Your task to perform on an android device: Check the news Image 0: 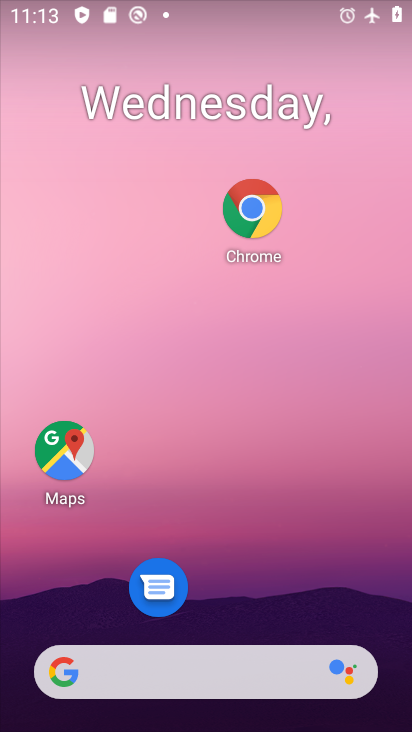
Step 0: drag from (251, 78) to (248, 8)
Your task to perform on an android device: Check the news Image 1: 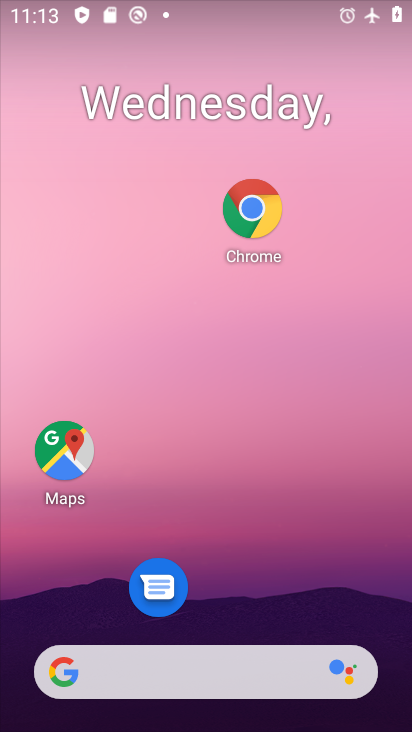
Step 1: click (246, 490)
Your task to perform on an android device: Check the news Image 2: 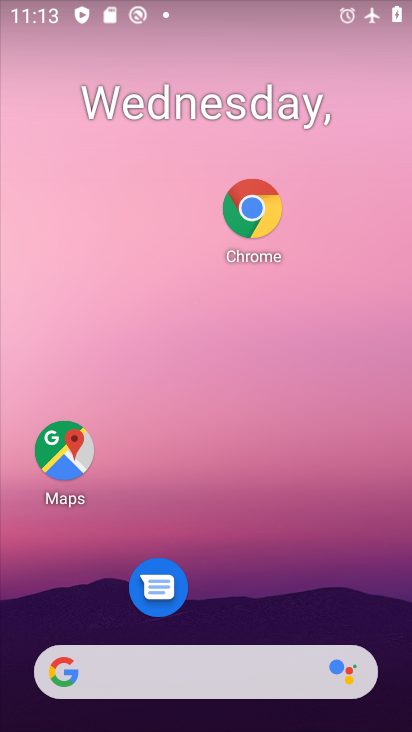
Step 2: click (225, 672)
Your task to perform on an android device: Check the news Image 3: 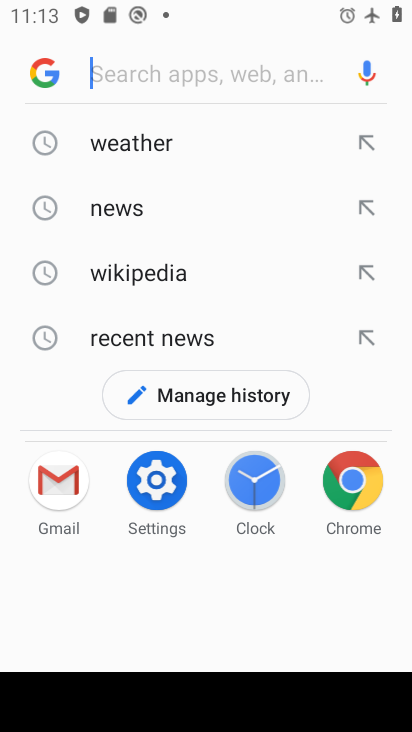
Step 3: click (110, 207)
Your task to perform on an android device: Check the news Image 4: 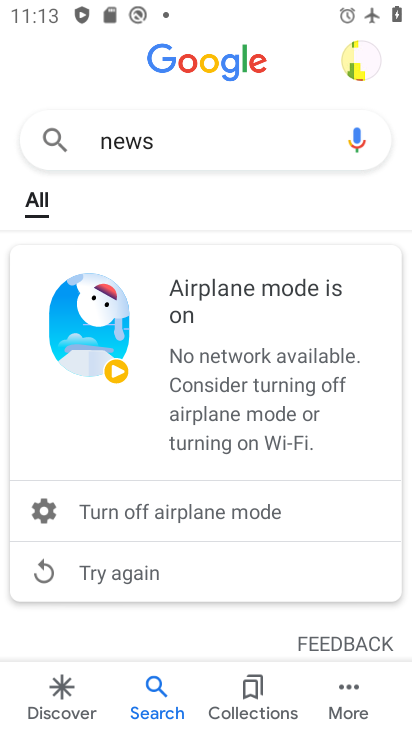
Step 4: press back button
Your task to perform on an android device: Check the news Image 5: 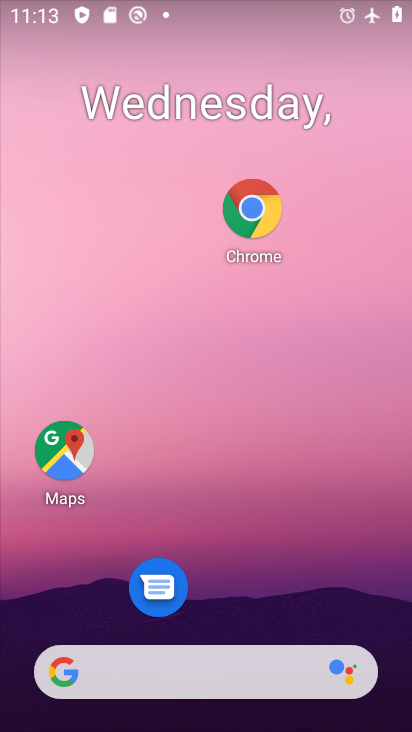
Step 5: drag from (218, 628) to (194, 86)
Your task to perform on an android device: Check the news Image 6: 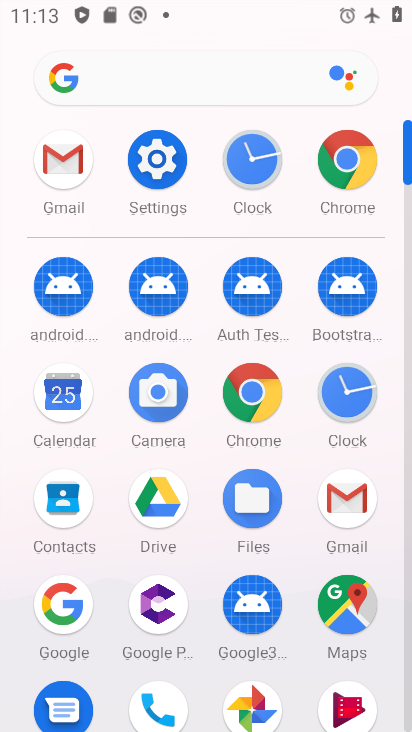
Step 6: click (145, 187)
Your task to perform on an android device: Check the news Image 7: 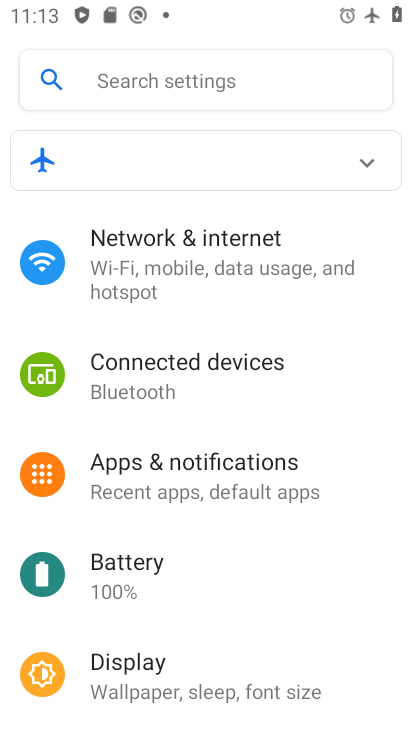
Step 7: click (371, 165)
Your task to perform on an android device: Check the news Image 8: 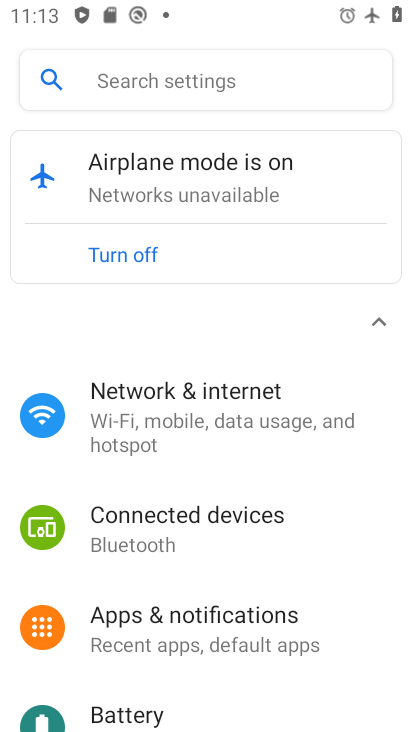
Step 8: click (135, 258)
Your task to perform on an android device: Check the news Image 9: 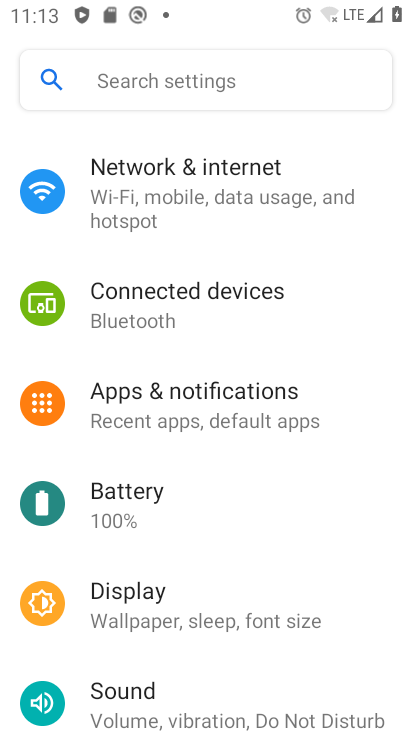
Step 9: press home button
Your task to perform on an android device: Check the news Image 10: 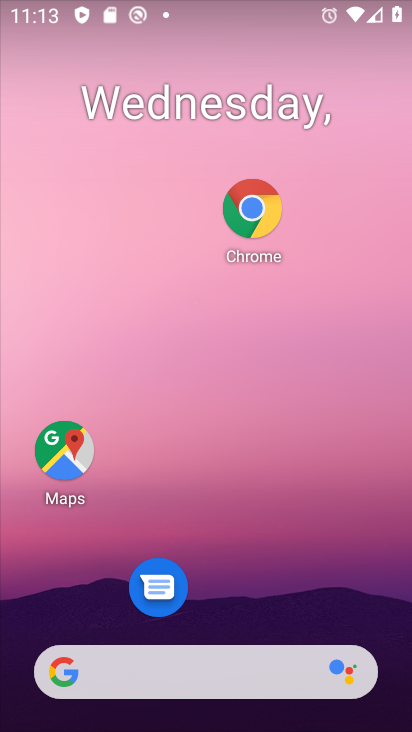
Step 10: drag from (255, 577) to (252, 70)
Your task to perform on an android device: Check the news Image 11: 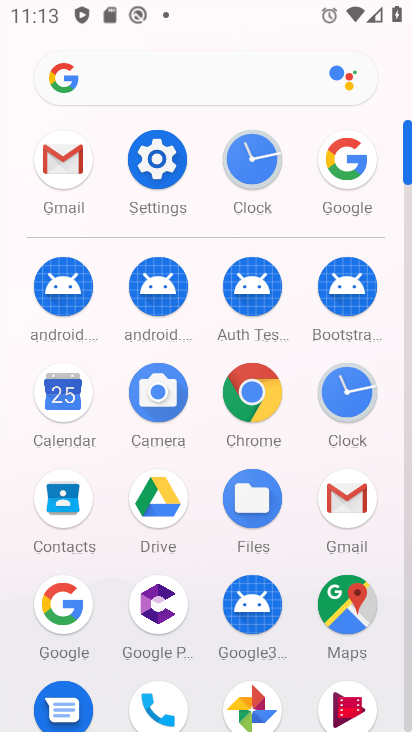
Step 11: click (78, 609)
Your task to perform on an android device: Check the news Image 12: 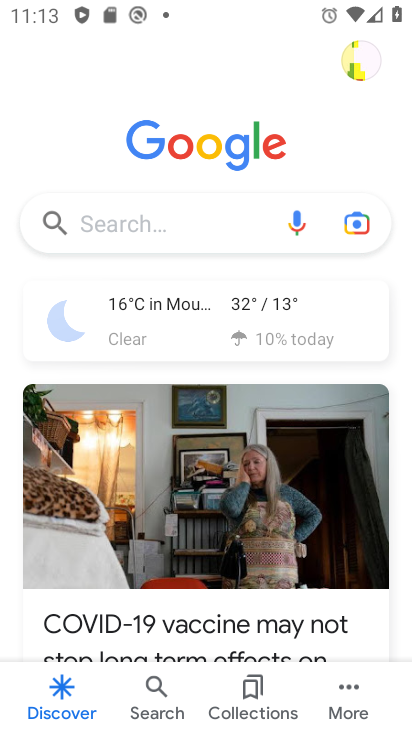
Step 12: click (164, 228)
Your task to perform on an android device: Check the news Image 13: 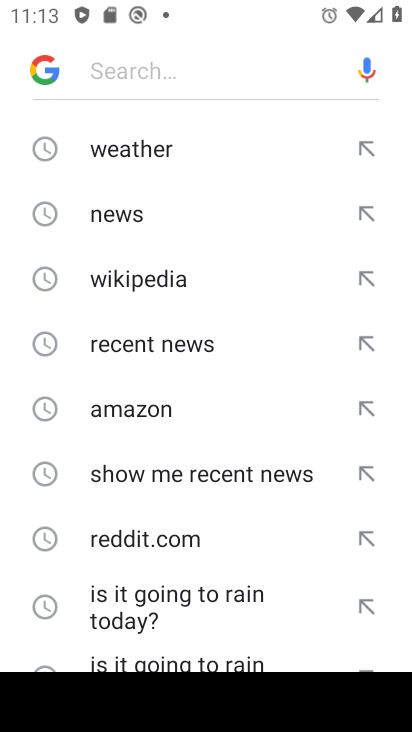
Step 13: click (136, 229)
Your task to perform on an android device: Check the news Image 14: 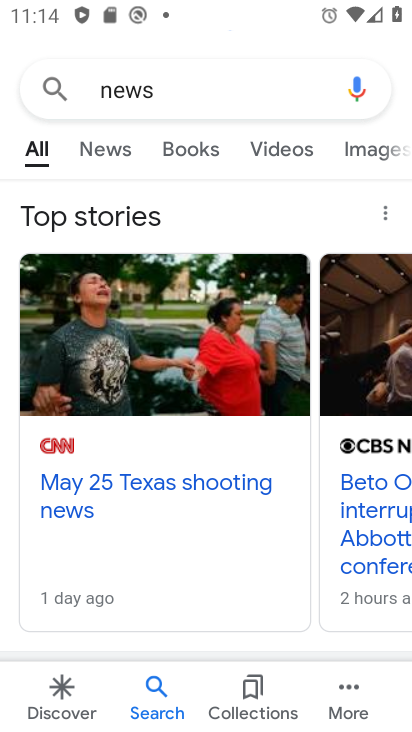
Step 14: task complete